Your task to perform on an android device: change the clock display to show seconds Image 0: 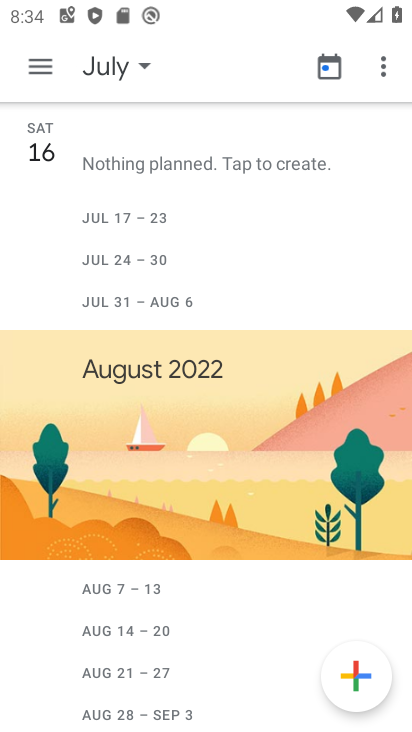
Step 0: press home button
Your task to perform on an android device: change the clock display to show seconds Image 1: 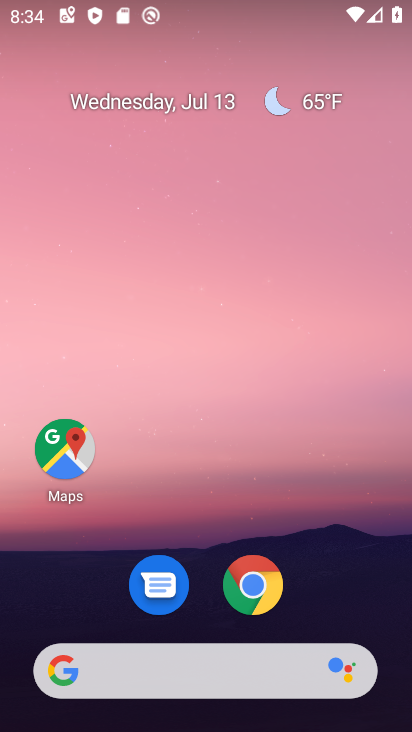
Step 1: drag from (294, 506) to (280, 20)
Your task to perform on an android device: change the clock display to show seconds Image 2: 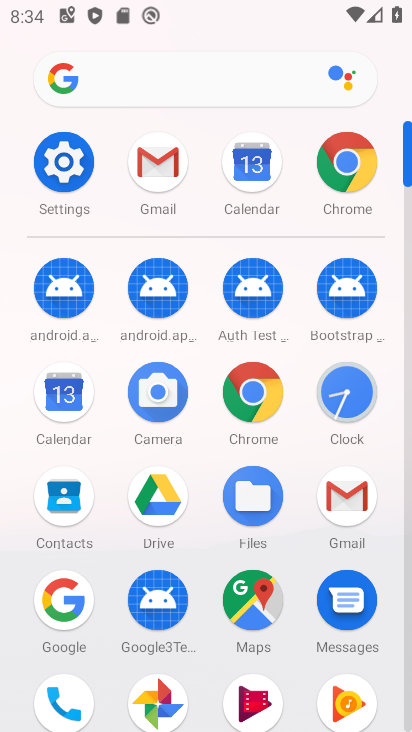
Step 2: click (349, 396)
Your task to perform on an android device: change the clock display to show seconds Image 3: 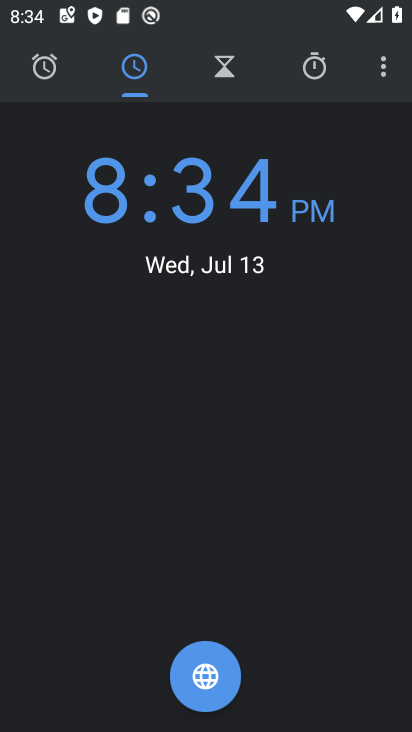
Step 3: click (385, 72)
Your task to perform on an android device: change the clock display to show seconds Image 4: 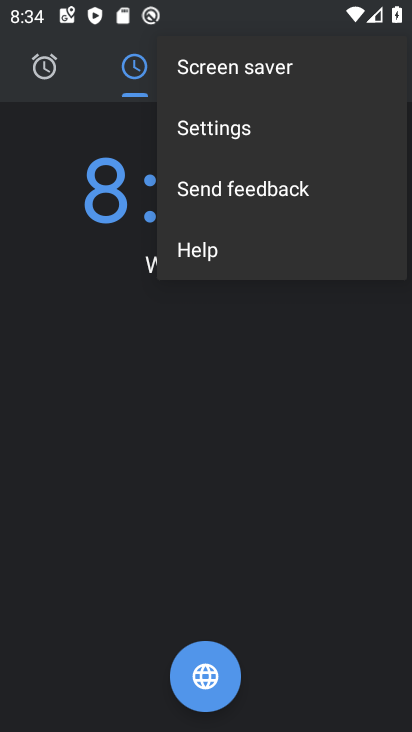
Step 4: click (283, 131)
Your task to perform on an android device: change the clock display to show seconds Image 5: 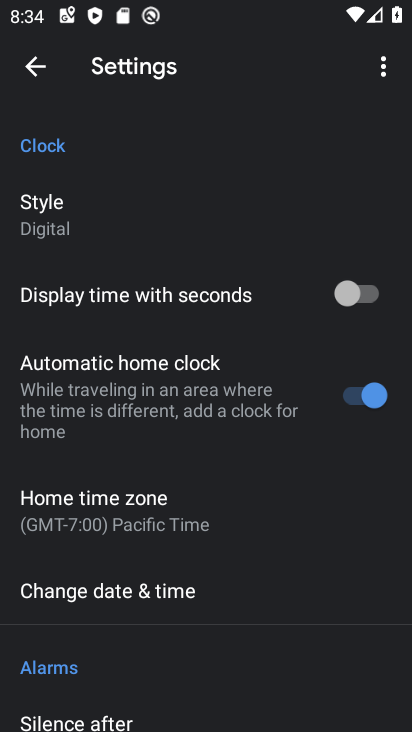
Step 5: click (368, 294)
Your task to perform on an android device: change the clock display to show seconds Image 6: 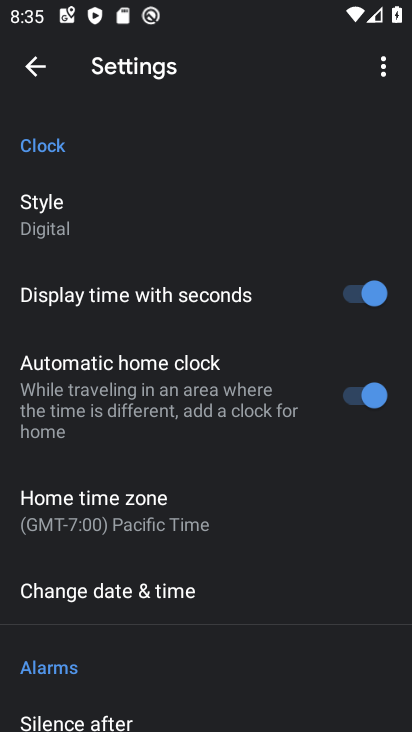
Step 6: task complete